Your task to perform on an android device: Open notification settings Image 0: 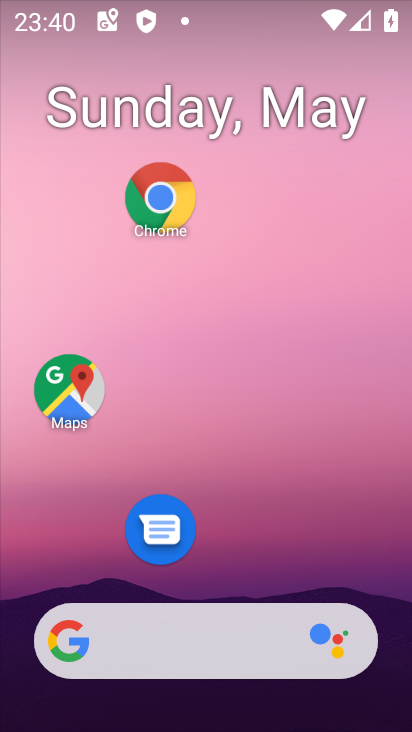
Step 0: drag from (363, 533) to (312, 100)
Your task to perform on an android device: Open notification settings Image 1: 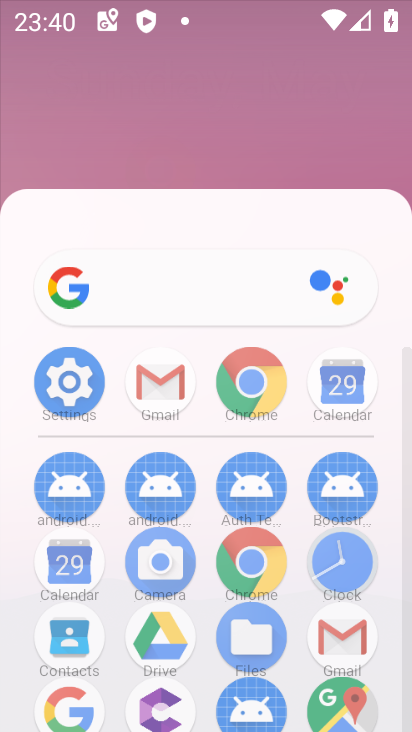
Step 1: click (312, 100)
Your task to perform on an android device: Open notification settings Image 2: 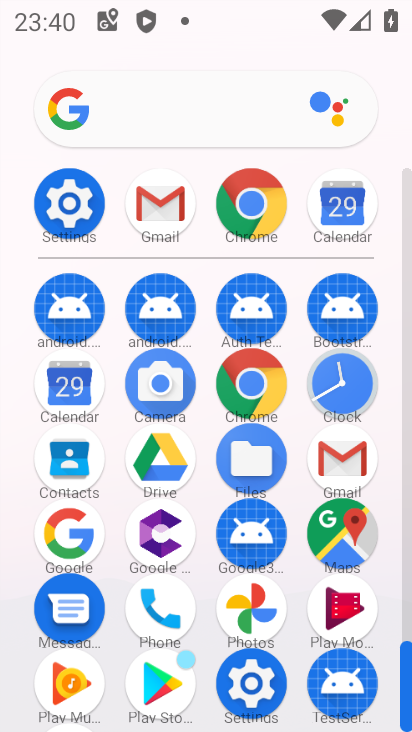
Step 2: click (64, 202)
Your task to perform on an android device: Open notification settings Image 3: 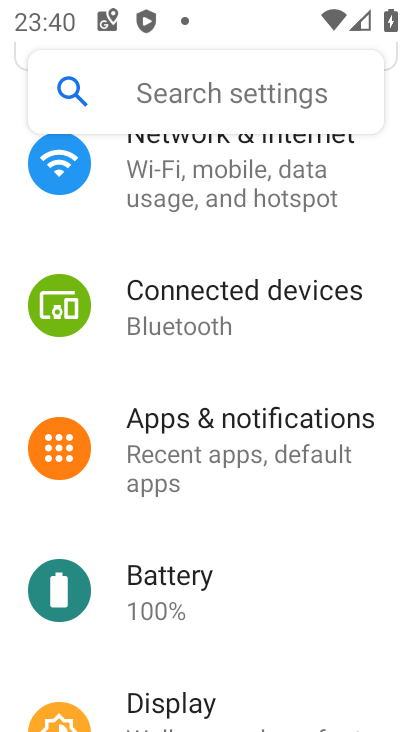
Step 3: click (263, 412)
Your task to perform on an android device: Open notification settings Image 4: 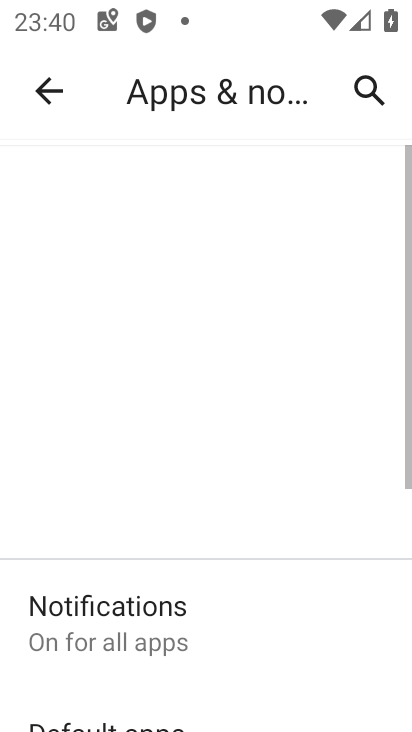
Step 4: task complete